Your task to perform on an android device: Open calendar and show me the fourth week of next month Image 0: 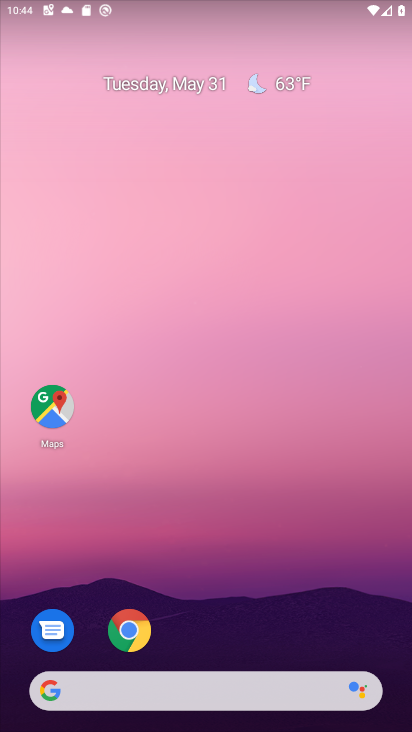
Step 0: drag from (268, 560) to (251, 82)
Your task to perform on an android device: Open calendar and show me the fourth week of next month Image 1: 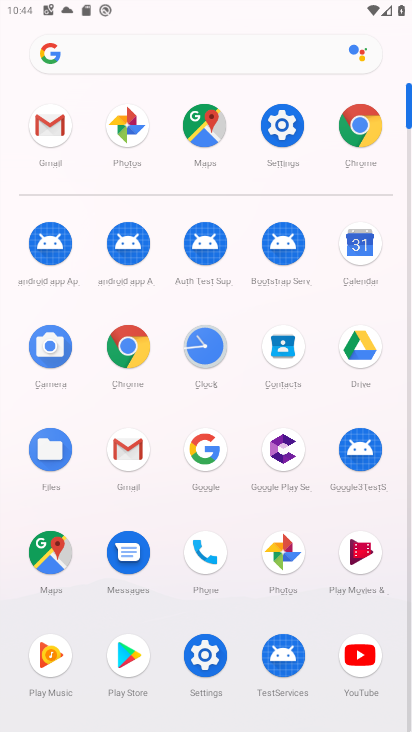
Step 1: click (366, 253)
Your task to perform on an android device: Open calendar and show me the fourth week of next month Image 2: 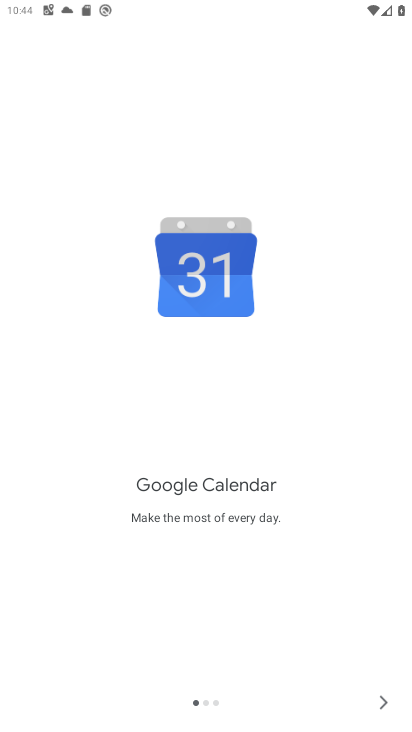
Step 2: click (385, 707)
Your task to perform on an android device: Open calendar and show me the fourth week of next month Image 3: 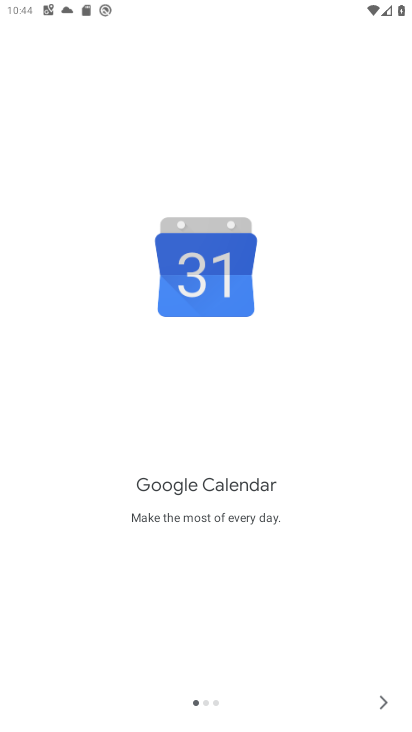
Step 3: click (385, 706)
Your task to perform on an android device: Open calendar and show me the fourth week of next month Image 4: 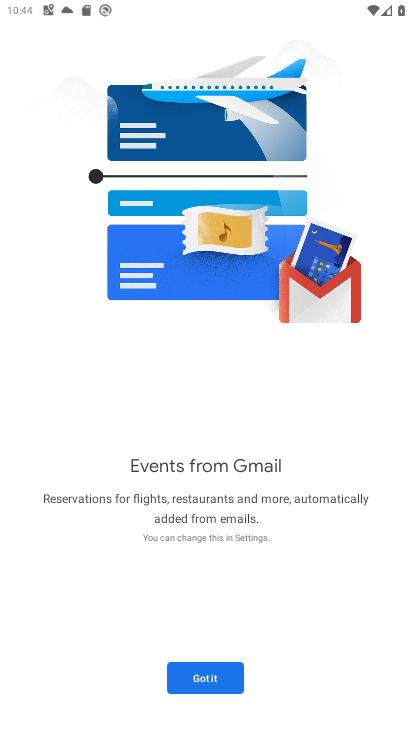
Step 4: click (213, 673)
Your task to perform on an android device: Open calendar and show me the fourth week of next month Image 5: 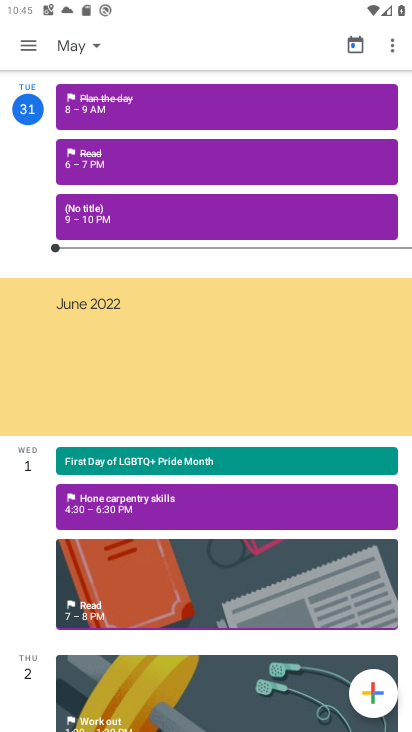
Step 5: click (68, 48)
Your task to perform on an android device: Open calendar and show me the fourth week of next month Image 6: 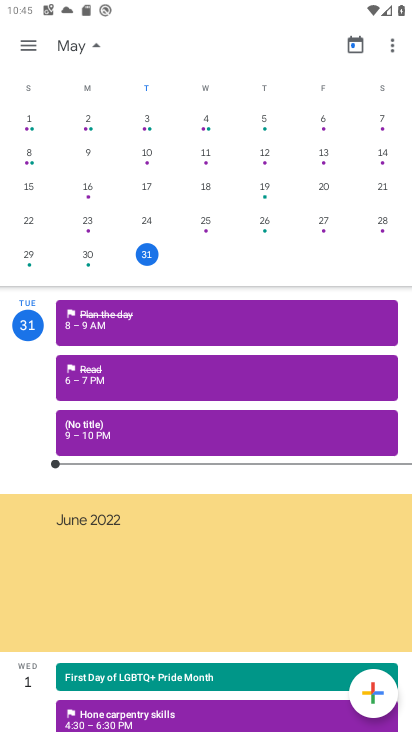
Step 6: click (71, 45)
Your task to perform on an android device: Open calendar and show me the fourth week of next month Image 7: 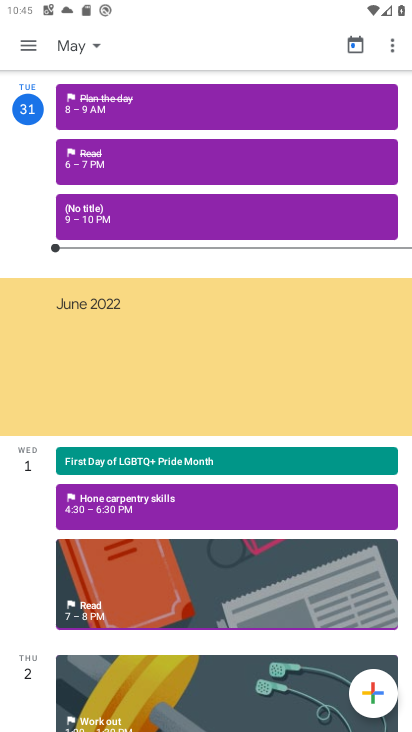
Step 7: click (94, 49)
Your task to perform on an android device: Open calendar and show me the fourth week of next month Image 8: 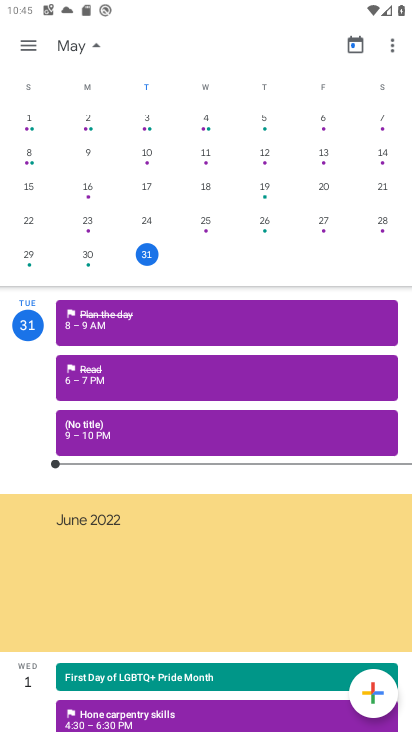
Step 8: drag from (337, 212) to (3, 178)
Your task to perform on an android device: Open calendar and show me the fourth week of next month Image 9: 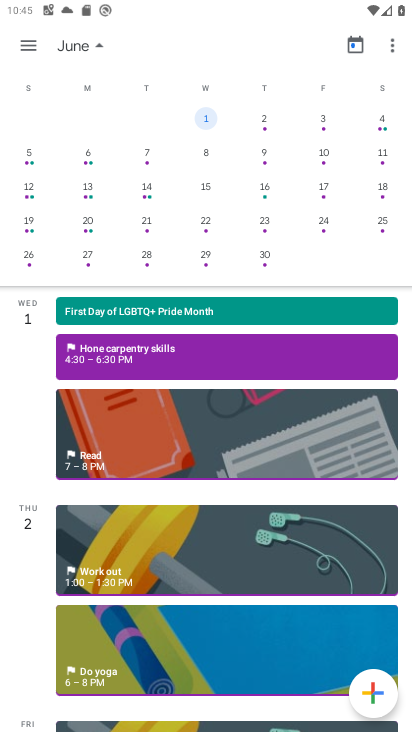
Step 9: click (31, 261)
Your task to perform on an android device: Open calendar and show me the fourth week of next month Image 10: 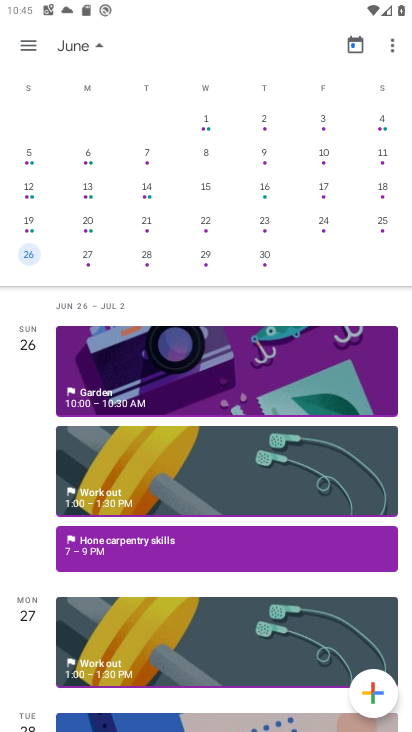
Step 10: task complete